Your task to perform on an android device: Go to settings Image 0: 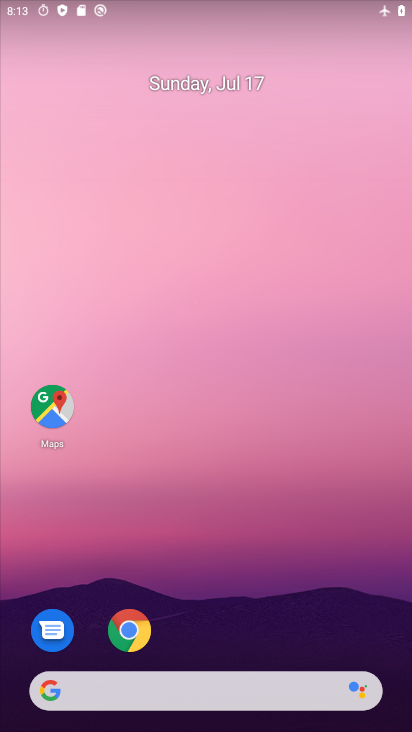
Step 0: drag from (16, 684) to (215, 165)
Your task to perform on an android device: Go to settings Image 1: 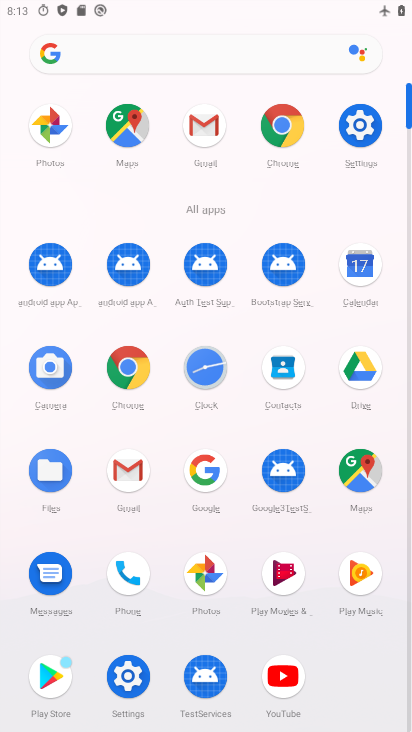
Step 1: click (137, 683)
Your task to perform on an android device: Go to settings Image 2: 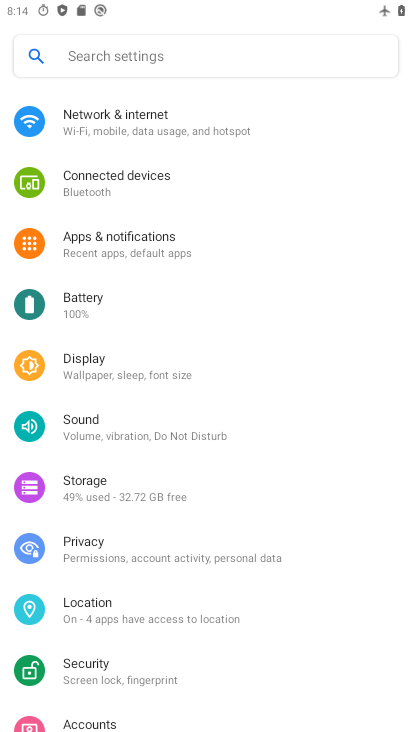
Step 2: task complete